Your task to perform on an android device: Go to internet settings Image 0: 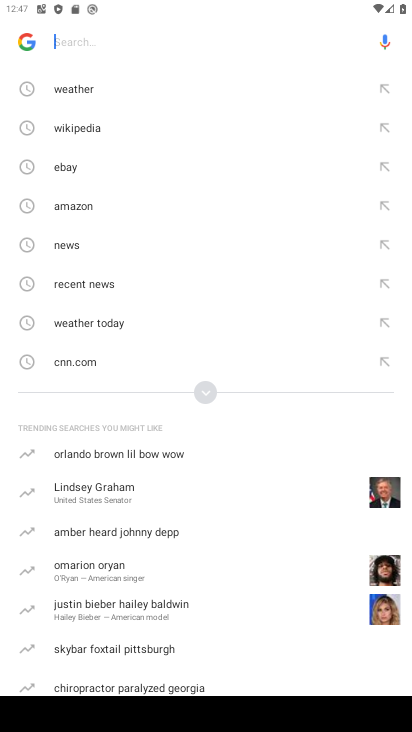
Step 0: press home button
Your task to perform on an android device: Go to internet settings Image 1: 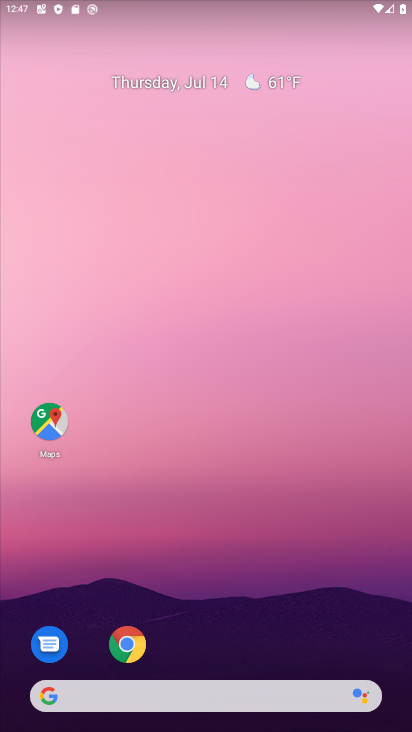
Step 1: drag from (204, 576) to (198, 74)
Your task to perform on an android device: Go to internet settings Image 2: 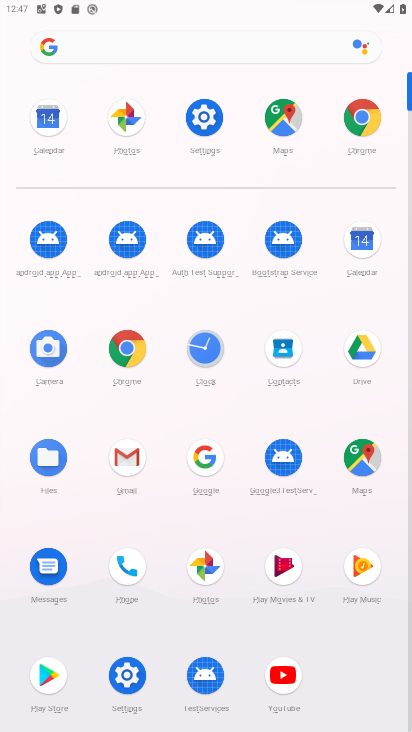
Step 2: click (208, 119)
Your task to perform on an android device: Go to internet settings Image 3: 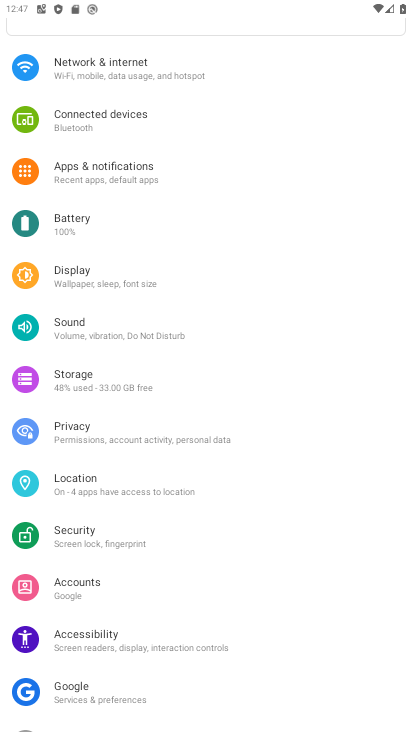
Step 3: click (151, 74)
Your task to perform on an android device: Go to internet settings Image 4: 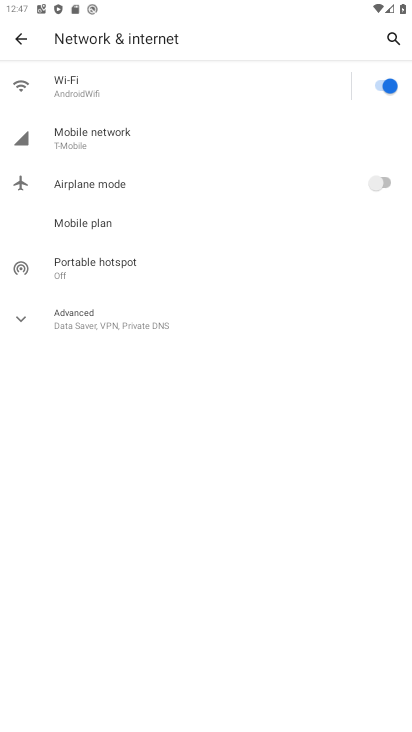
Step 4: task complete